Your task to perform on an android device: turn pop-ups off in chrome Image 0: 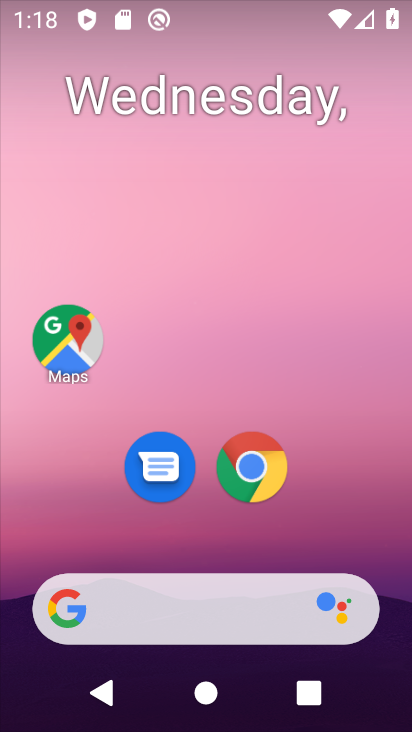
Step 0: click (274, 470)
Your task to perform on an android device: turn pop-ups off in chrome Image 1: 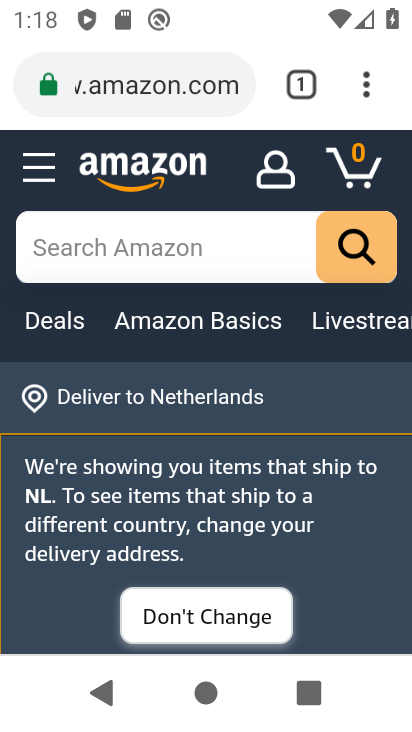
Step 1: click (356, 82)
Your task to perform on an android device: turn pop-ups off in chrome Image 2: 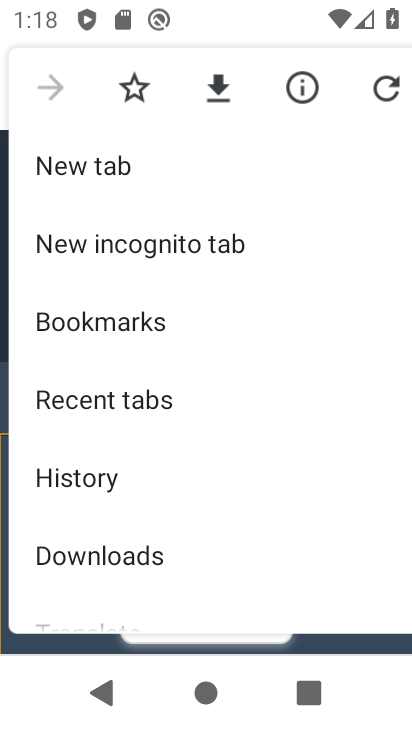
Step 2: drag from (220, 520) to (233, 32)
Your task to perform on an android device: turn pop-ups off in chrome Image 3: 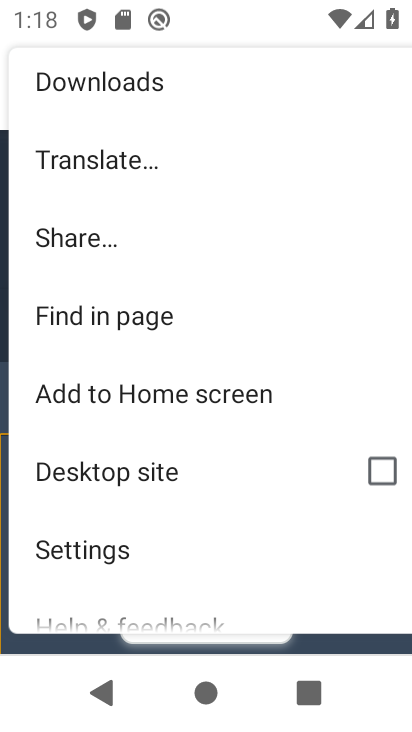
Step 3: click (174, 541)
Your task to perform on an android device: turn pop-ups off in chrome Image 4: 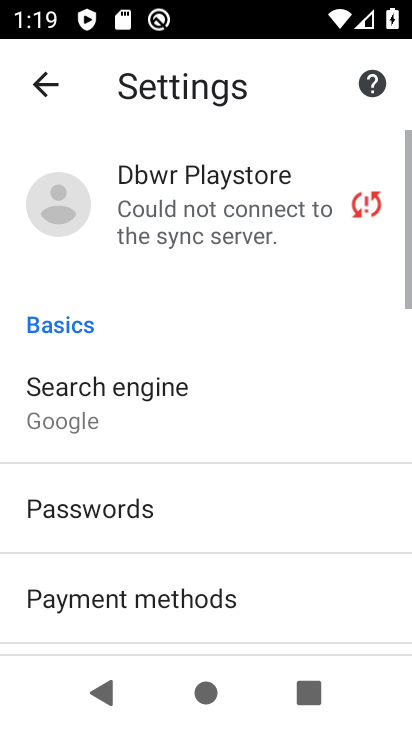
Step 4: drag from (276, 586) to (271, 90)
Your task to perform on an android device: turn pop-ups off in chrome Image 5: 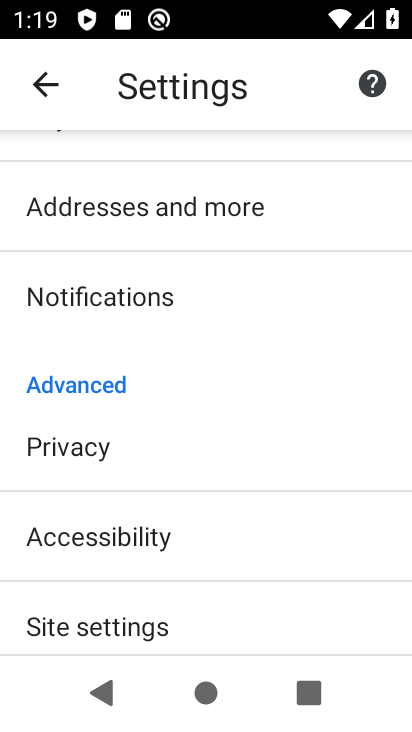
Step 5: click (214, 627)
Your task to perform on an android device: turn pop-ups off in chrome Image 6: 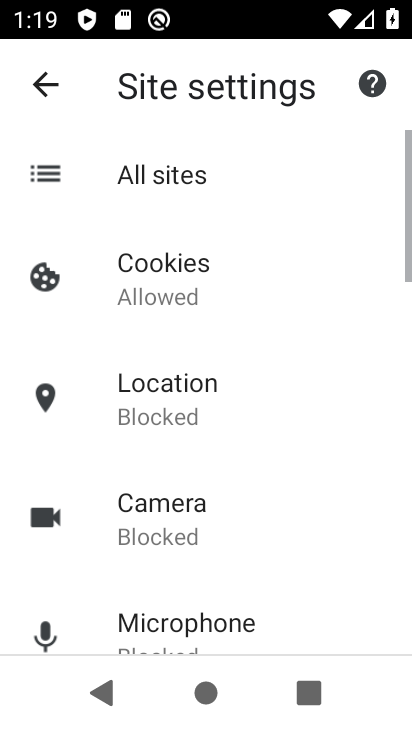
Step 6: drag from (229, 599) to (263, 148)
Your task to perform on an android device: turn pop-ups off in chrome Image 7: 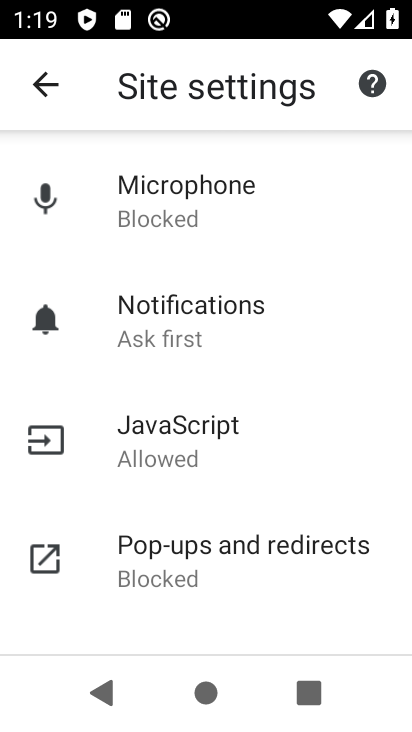
Step 7: click (249, 552)
Your task to perform on an android device: turn pop-ups off in chrome Image 8: 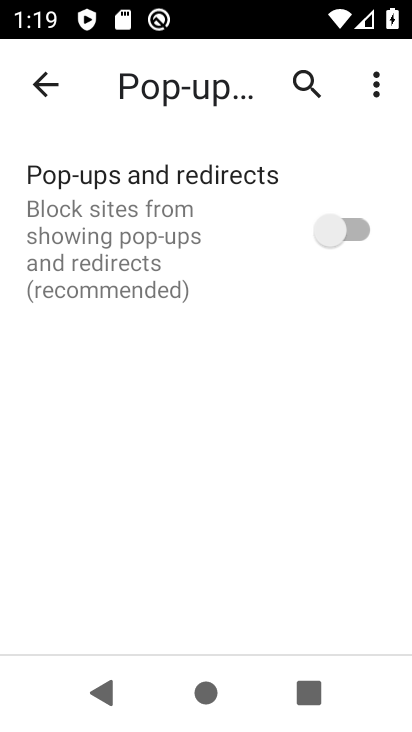
Step 8: task complete